Your task to perform on an android device: change notifications settings Image 0: 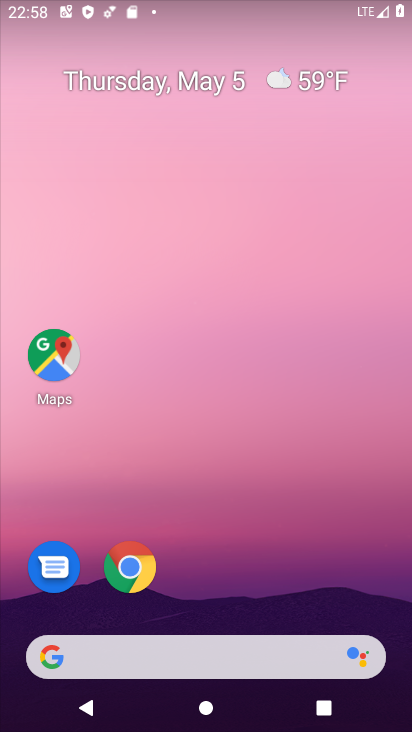
Step 0: drag from (204, 569) to (261, 139)
Your task to perform on an android device: change notifications settings Image 1: 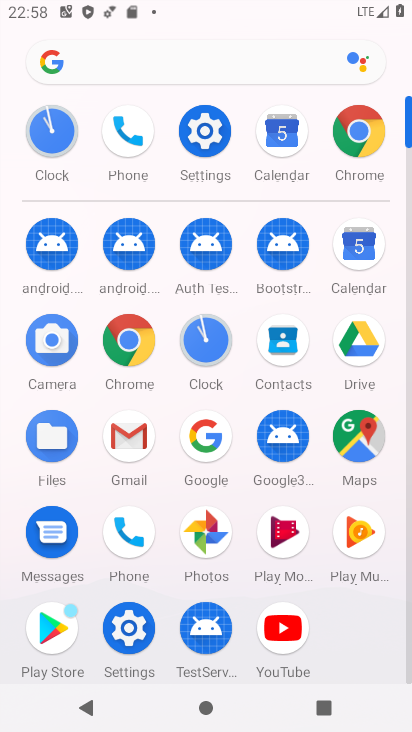
Step 1: click (204, 126)
Your task to perform on an android device: change notifications settings Image 2: 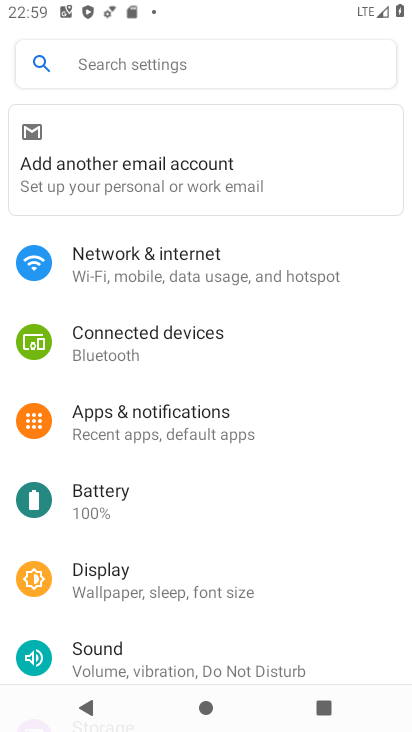
Step 2: click (136, 412)
Your task to perform on an android device: change notifications settings Image 3: 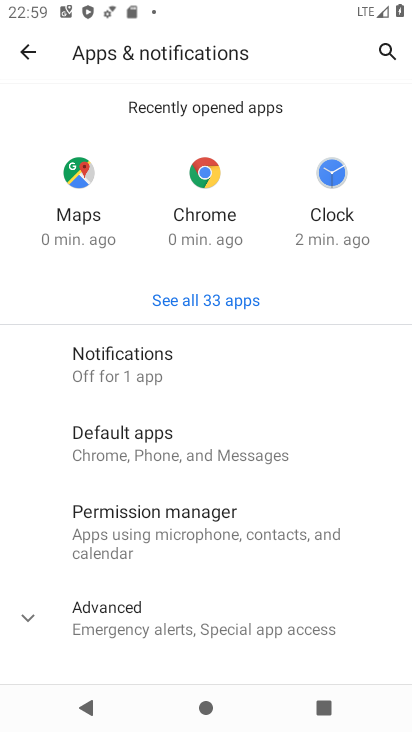
Step 3: click (137, 360)
Your task to perform on an android device: change notifications settings Image 4: 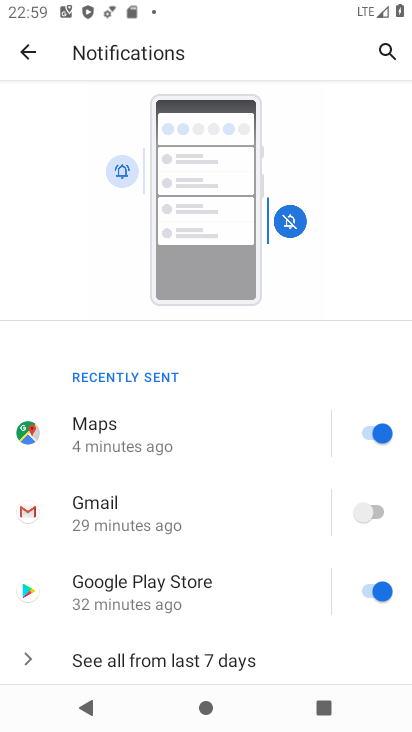
Step 4: drag from (163, 625) to (266, 215)
Your task to perform on an android device: change notifications settings Image 5: 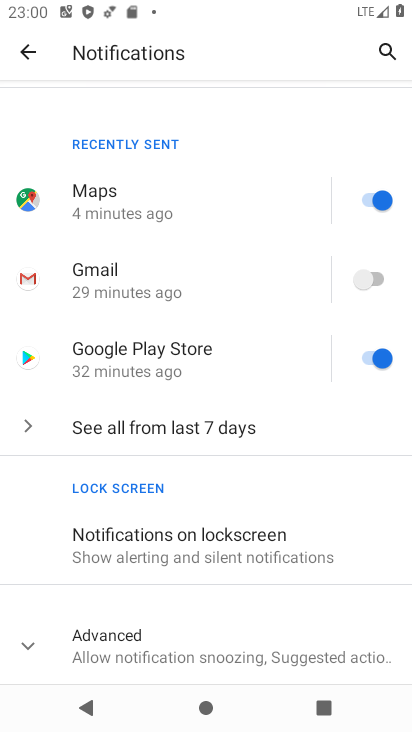
Step 5: click (207, 632)
Your task to perform on an android device: change notifications settings Image 6: 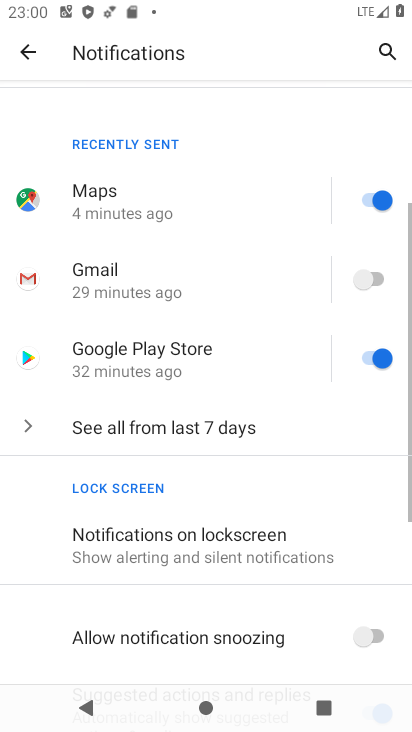
Step 6: drag from (216, 608) to (305, 224)
Your task to perform on an android device: change notifications settings Image 7: 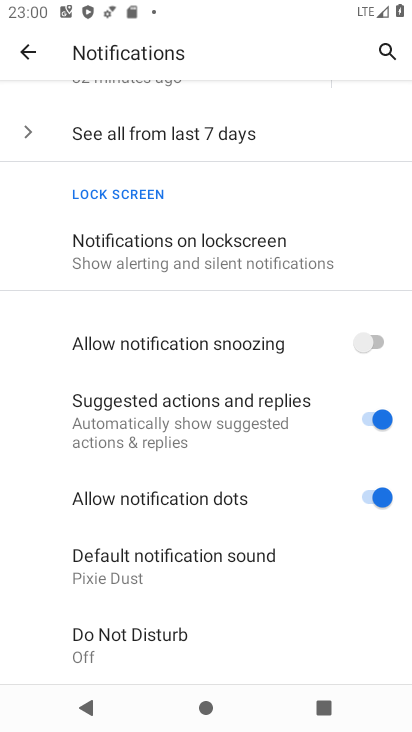
Step 7: click (383, 342)
Your task to perform on an android device: change notifications settings Image 8: 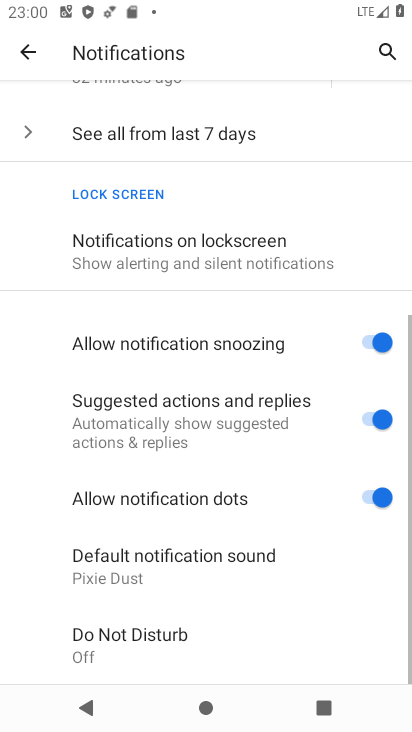
Step 8: task complete